Your task to perform on an android device: turn notification dots off Image 0: 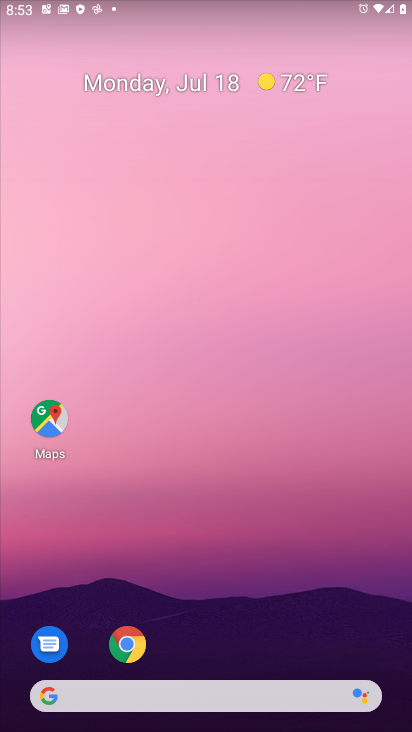
Step 0: drag from (391, 680) to (231, 56)
Your task to perform on an android device: turn notification dots off Image 1: 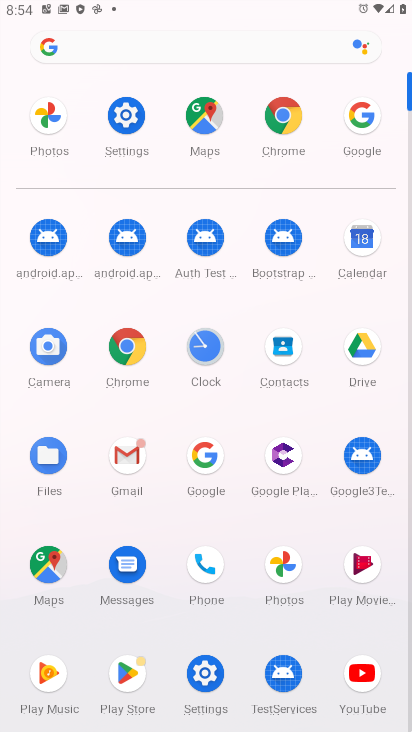
Step 1: click (205, 653)
Your task to perform on an android device: turn notification dots off Image 2: 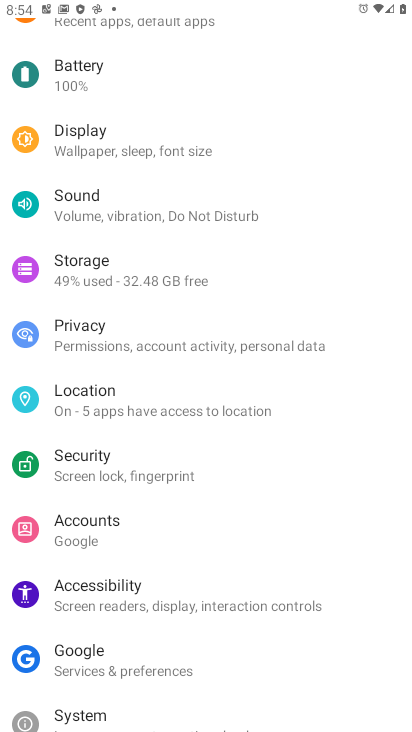
Step 2: drag from (163, 140) to (193, 603)
Your task to perform on an android device: turn notification dots off Image 3: 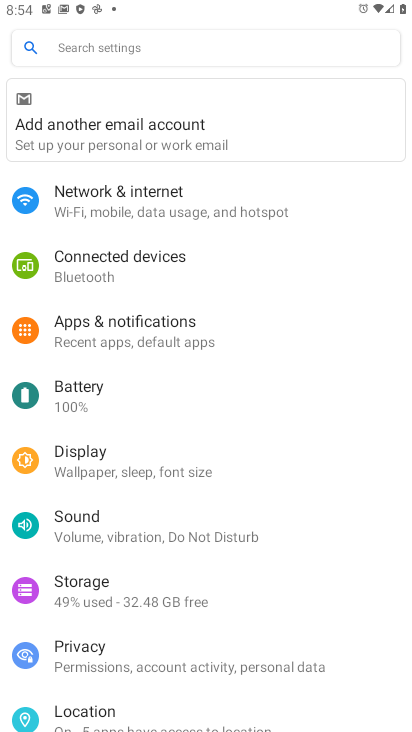
Step 3: click (145, 322)
Your task to perform on an android device: turn notification dots off Image 4: 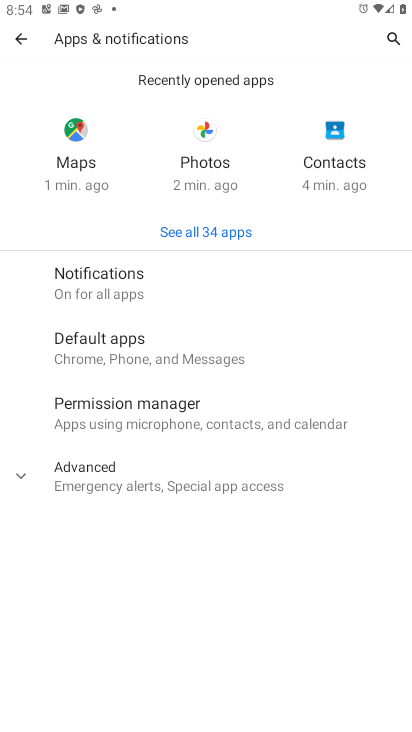
Step 4: click (141, 279)
Your task to perform on an android device: turn notification dots off Image 5: 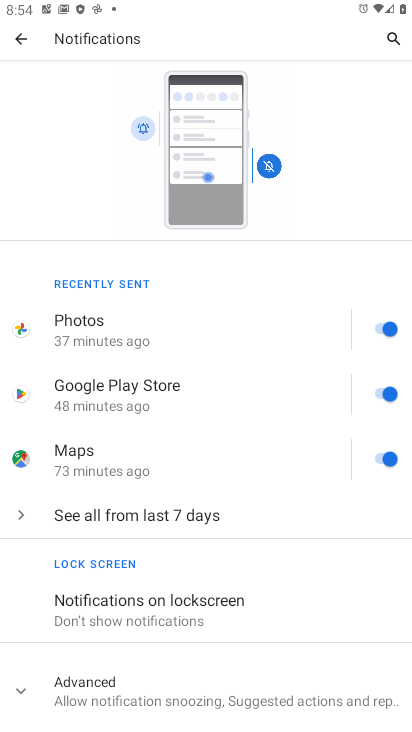
Step 5: click (123, 690)
Your task to perform on an android device: turn notification dots off Image 6: 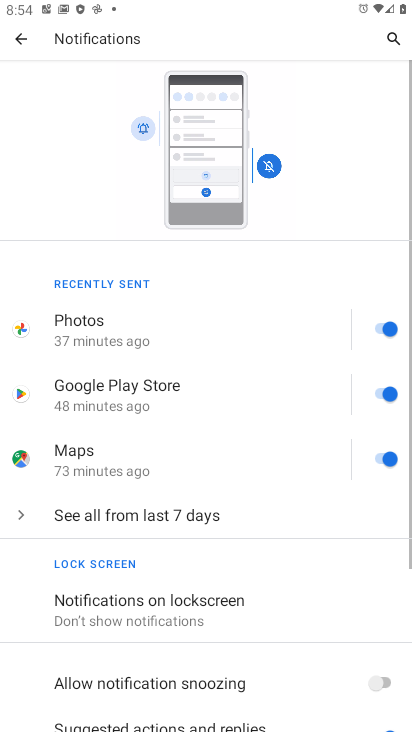
Step 6: drag from (131, 685) to (225, 206)
Your task to perform on an android device: turn notification dots off Image 7: 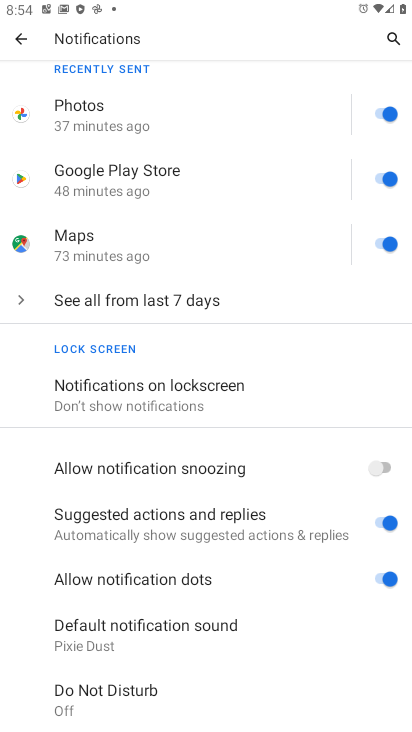
Step 7: click (335, 577)
Your task to perform on an android device: turn notification dots off Image 8: 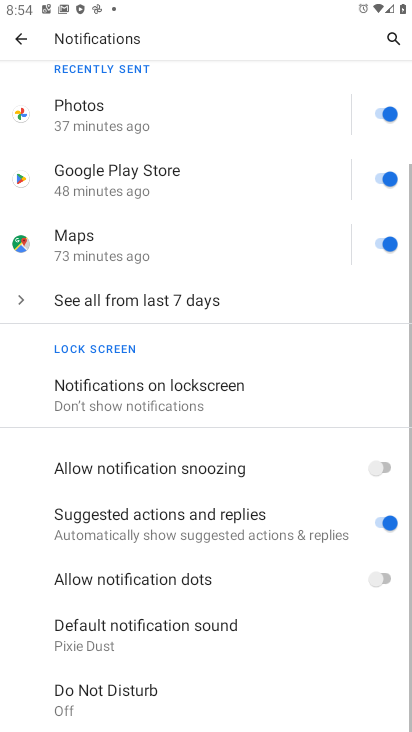
Step 8: task complete